Your task to perform on an android device: manage bookmarks in the chrome app Image 0: 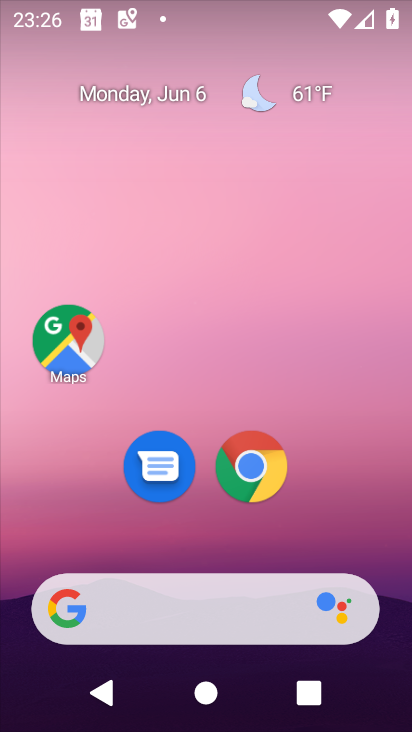
Step 0: press home button
Your task to perform on an android device: manage bookmarks in the chrome app Image 1: 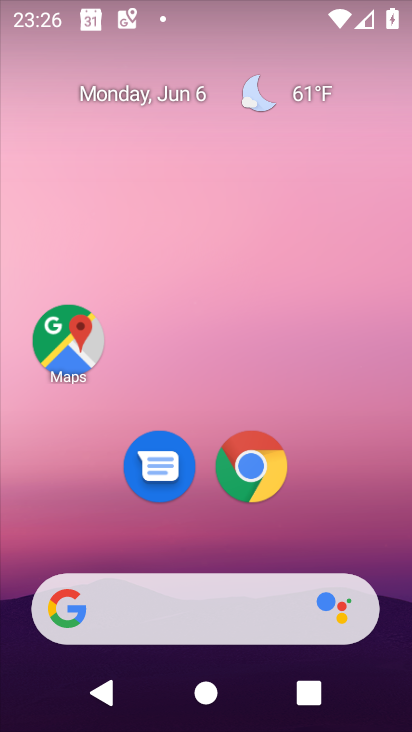
Step 1: drag from (386, 589) to (323, 4)
Your task to perform on an android device: manage bookmarks in the chrome app Image 2: 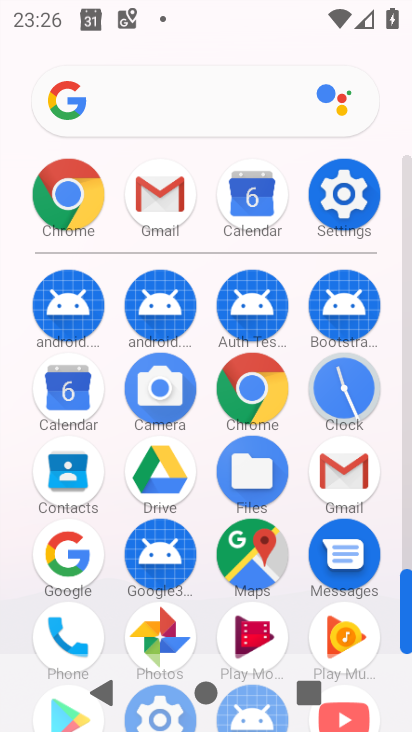
Step 2: click (102, 205)
Your task to perform on an android device: manage bookmarks in the chrome app Image 3: 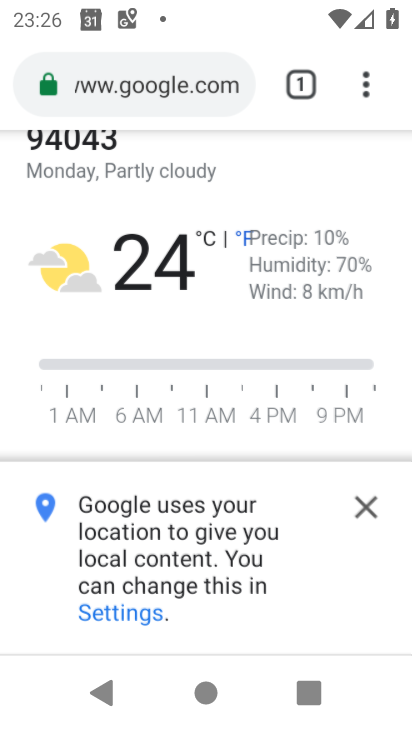
Step 3: task complete